Your task to perform on an android device: Open display settings Image 0: 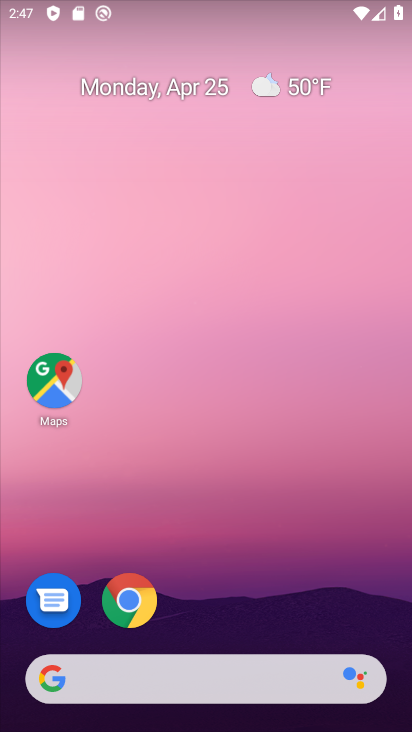
Step 0: drag from (373, 570) to (338, 220)
Your task to perform on an android device: Open display settings Image 1: 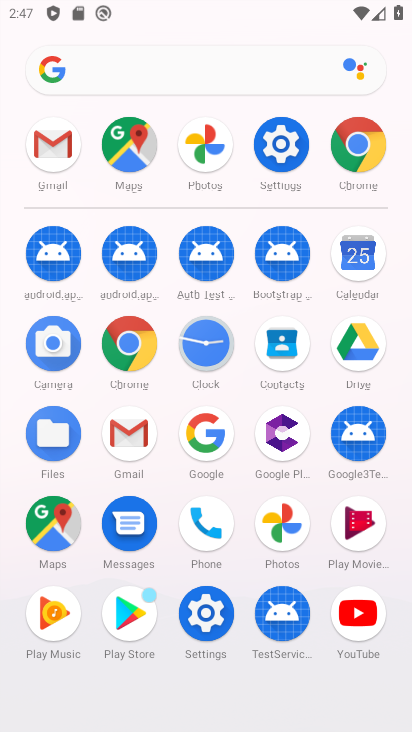
Step 1: click (290, 138)
Your task to perform on an android device: Open display settings Image 2: 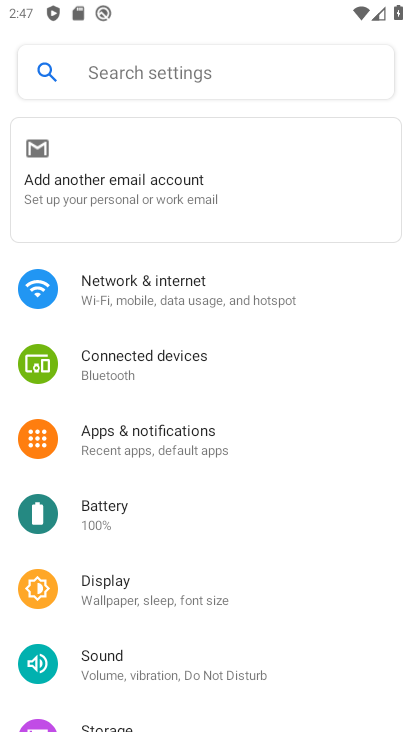
Step 2: click (116, 589)
Your task to perform on an android device: Open display settings Image 3: 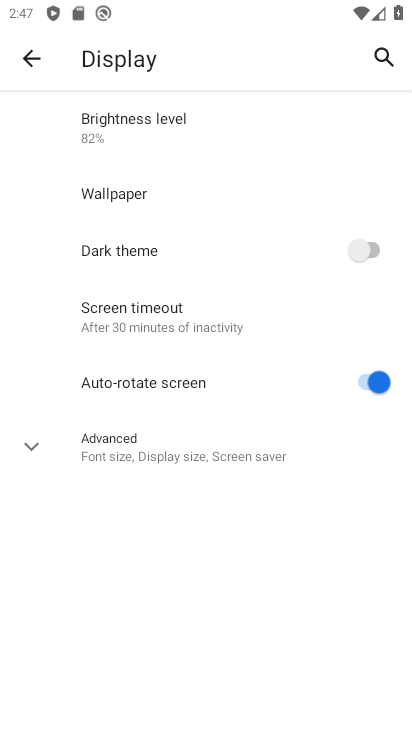
Step 3: task complete